Your task to perform on an android device: change the clock display to digital Image 0: 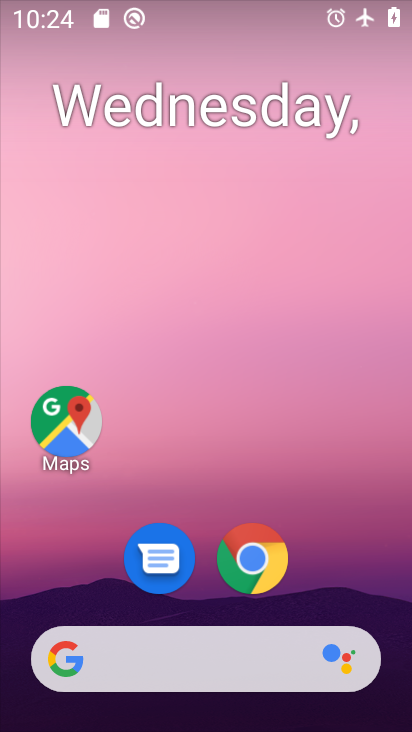
Step 0: drag from (372, 580) to (370, 133)
Your task to perform on an android device: change the clock display to digital Image 1: 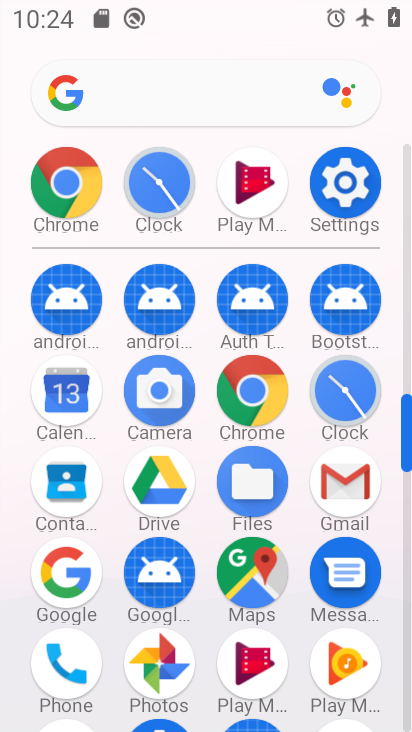
Step 1: click (351, 394)
Your task to perform on an android device: change the clock display to digital Image 2: 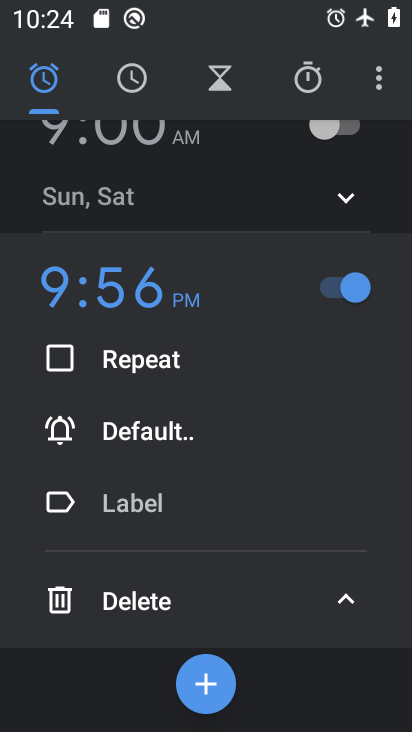
Step 2: click (378, 89)
Your task to perform on an android device: change the clock display to digital Image 3: 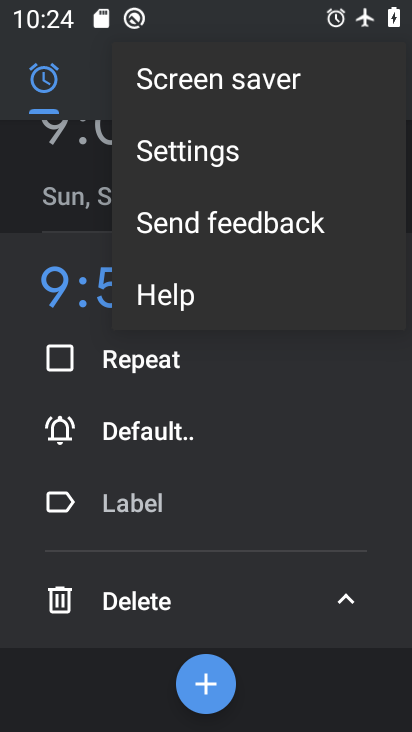
Step 3: click (290, 158)
Your task to perform on an android device: change the clock display to digital Image 4: 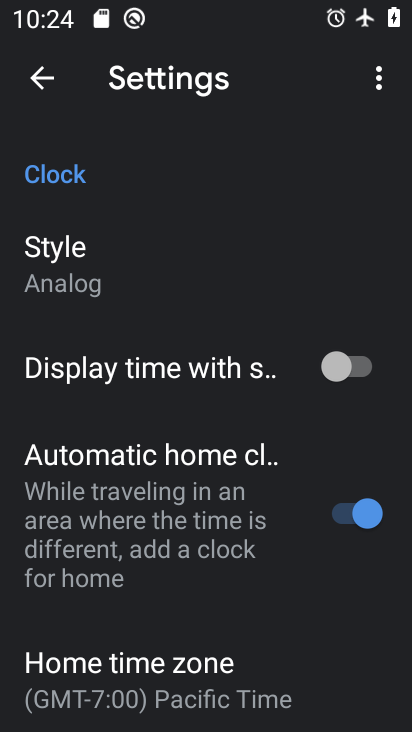
Step 4: drag from (275, 531) to (290, 373)
Your task to perform on an android device: change the clock display to digital Image 5: 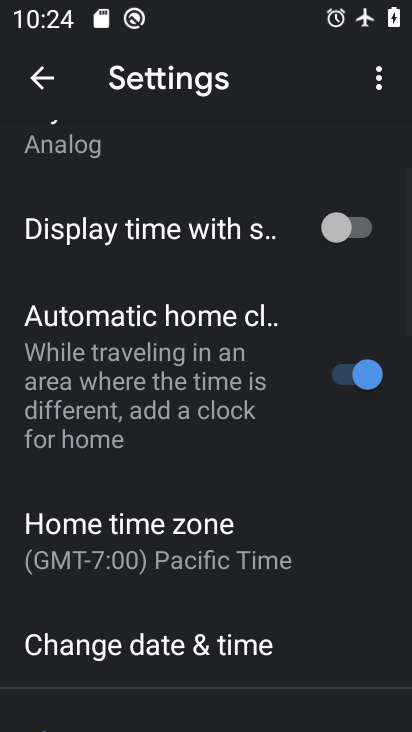
Step 5: drag from (273, 515) to (272, 361)
Your task to perform on an android device: change the clock display to digital Image 6: 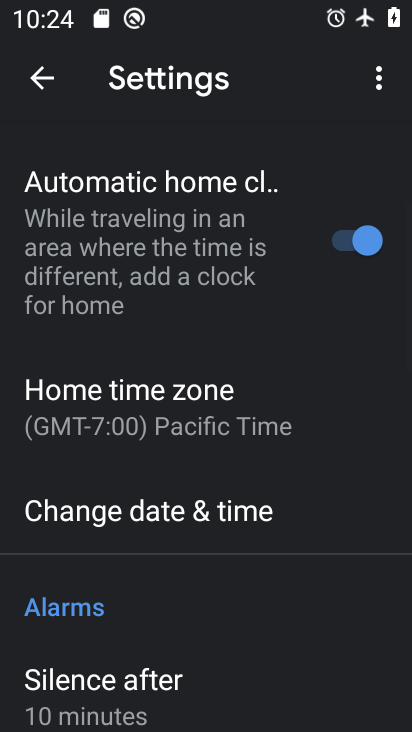
Step 6: drag from (263, 509) to (274, 324)
Your task to perform on an android device: change the clock display to digital Image 7: 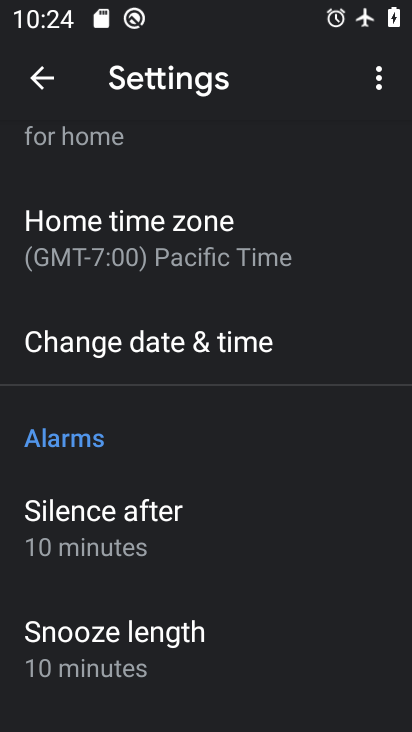
Step 7: drag from (305, 511) to (310, 350)
Your task to perform on an android device: change the clock display to digital Image 8: 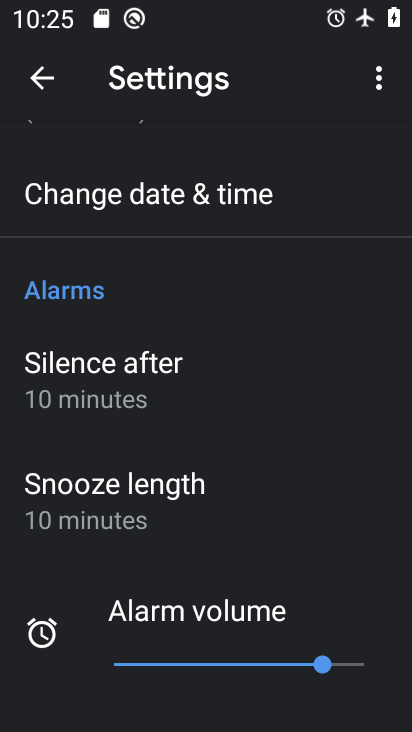
Step 8: drag from (297, 496) to (293, 360)
Your task to perform on an android device: change the clock display to digital Image 9: 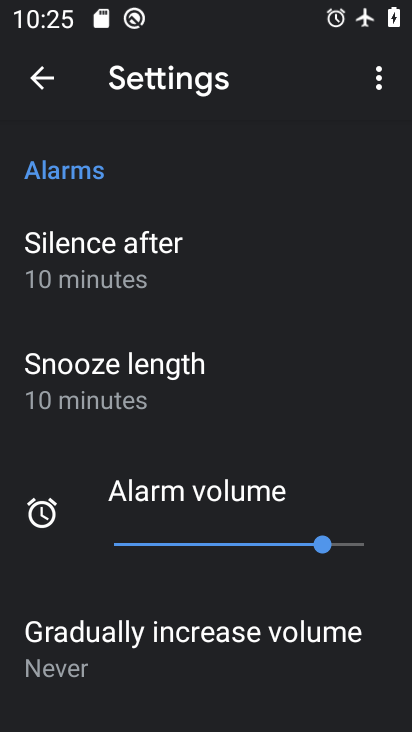
Step 9: drag from (341, 582) to (340, 409)
Your task to perform on an android device: change the clock display to digital Image 10: 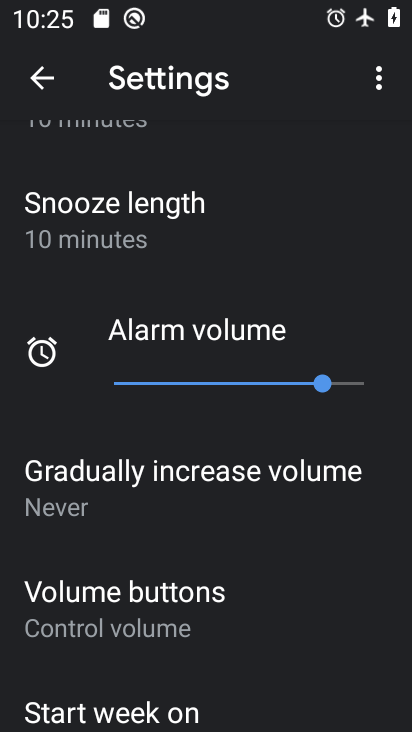
Step 10: drag from (347, 574) to (348, 422)
Your task to perform on an android device: change the clock display to digital Image 11: 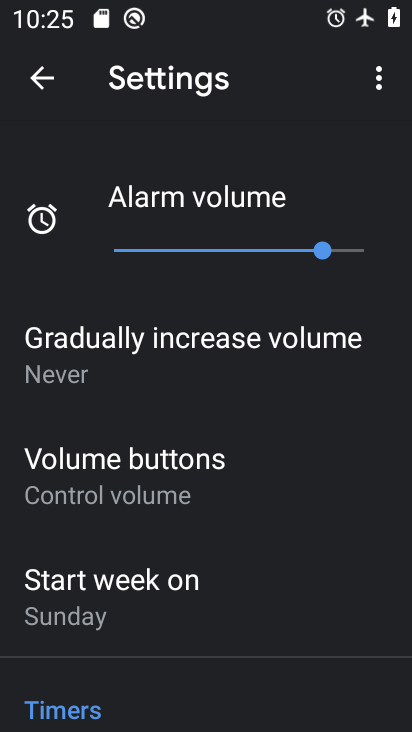
Step 11: drag from (347, 387) to (339, 503)
Your task to perform on an android device: change the clock display to digital Image 12: 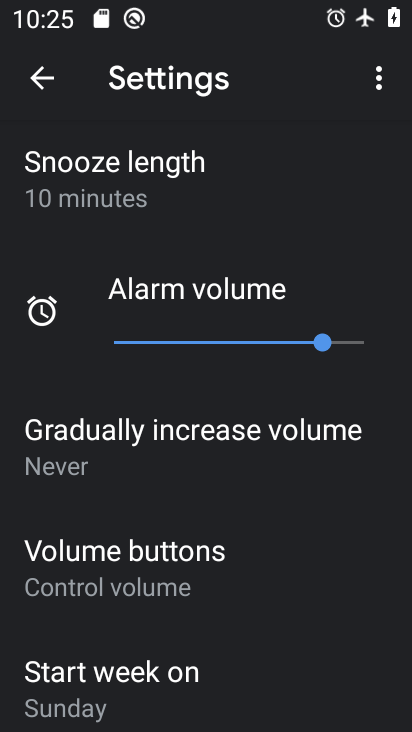
Step 12: drag from (374, 375) to (352, 527)
Your task to perform on an android device: change the clock display to digital Image 13: 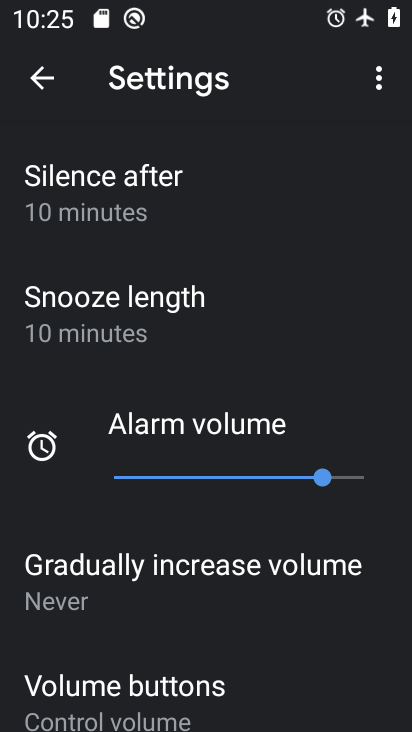
Step 13: drag from (360, 300) to (356, 503)
Your task to perform on an android device: change the clock display to digital Image 14: 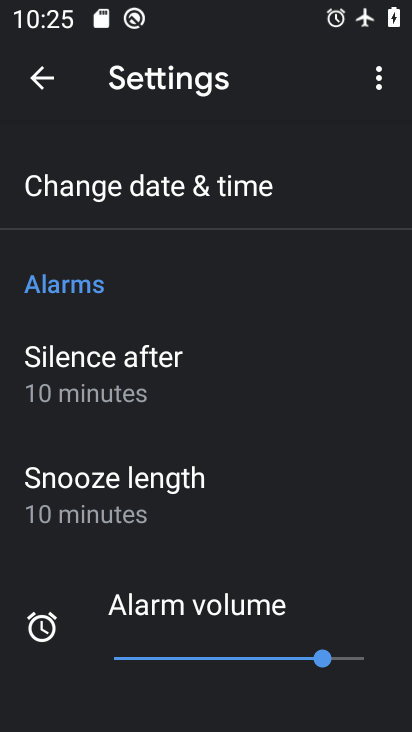
Step 14: drag from (345, 282) to (342, 523)
Your task to perform on an android device: change the clock display to digital Image 15: 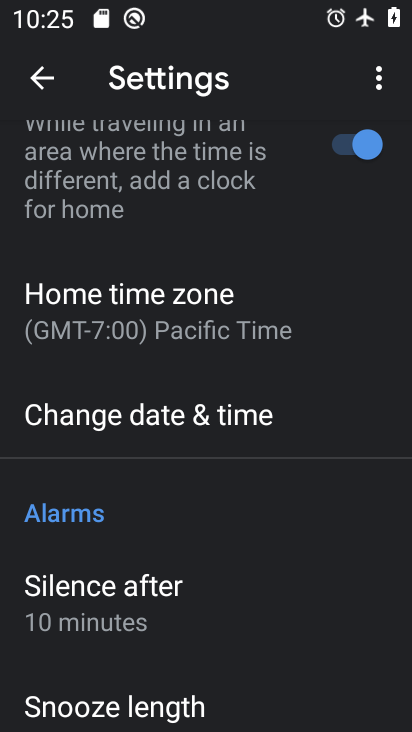
Step 15: drag from (351, 246) to (344, 426)
Your task to perform on an android device: change the clock display to digital Image 16: 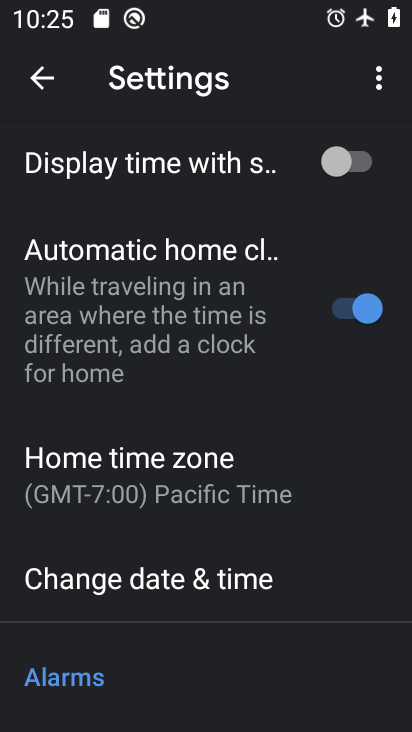
Step 16: drag from (310, 211) to (316, 413)
Your task to perform on an android device: change the clock display to digital Image 17: 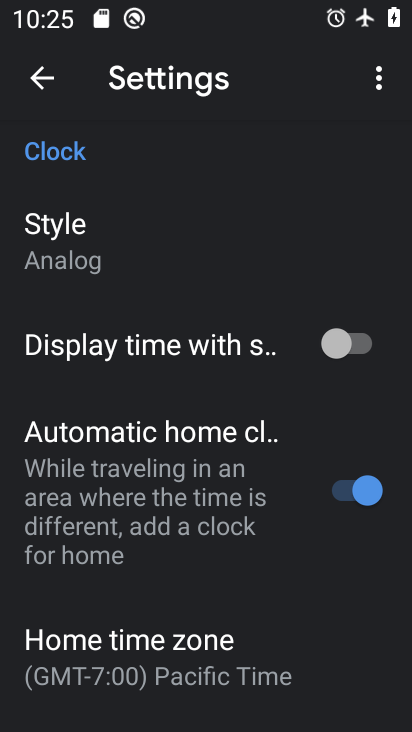
Step 17: click (104, 265)
Your task to perform on an android device: change the clock display to digital Image 18: 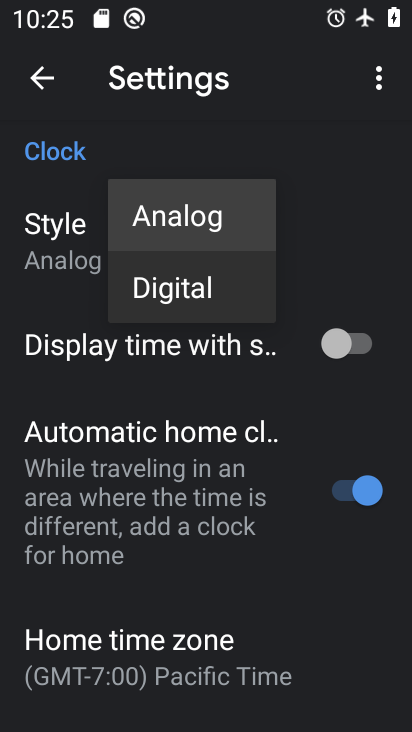
Step 18: click (184, 300)
Your task to perform on an android device: change the clock display to digital Image 19: 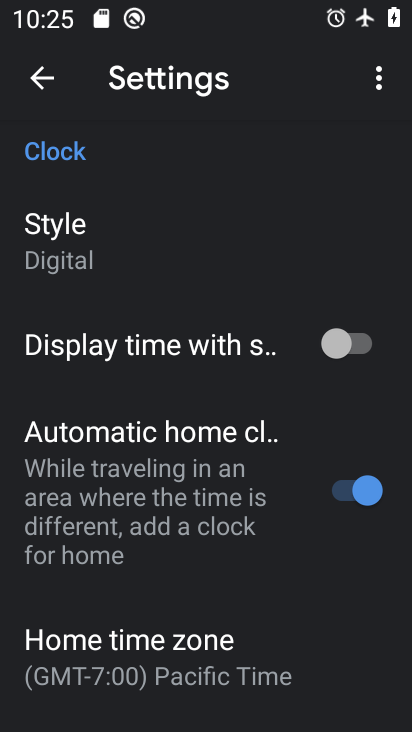
Step 19: task complete